Your task to perform on an android device: Go to eBay Image 0: 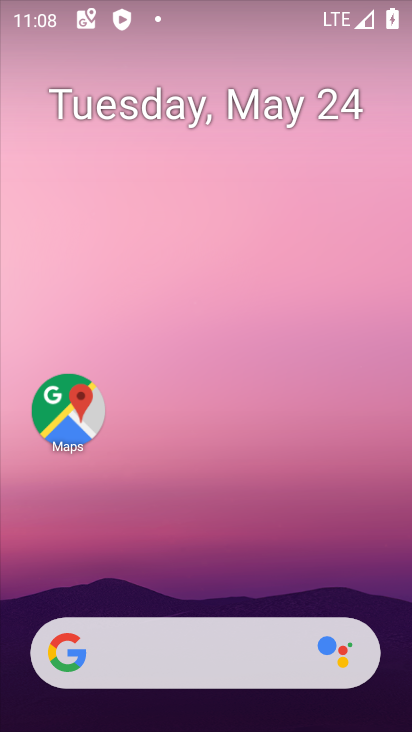
Step 0: drag from (261, 654) to (241, 179)
Your task to perform on an android device: Go to eBay Image 1: 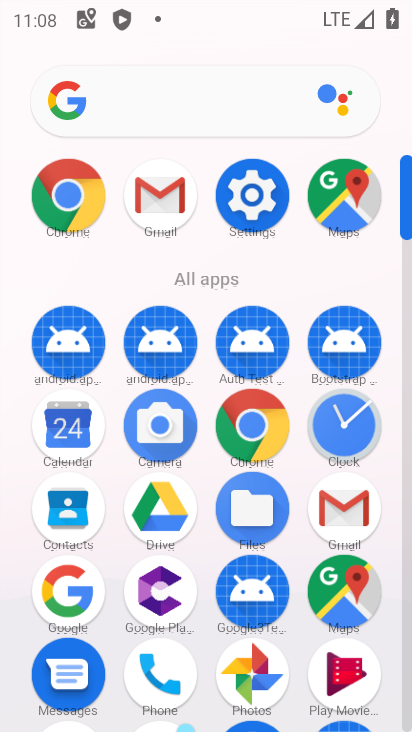
Step 1: click (86, 214)
Your task to perform on an android device: Go to eBay Image 2: 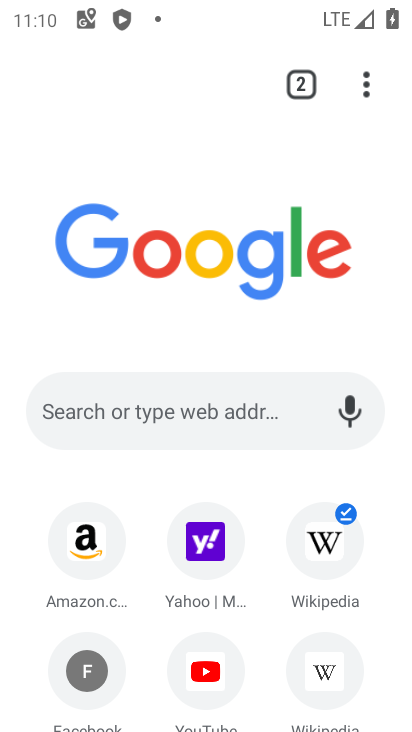
Step 2: click (176, 390)
Your task to perform on an android device: Go to eBay Image 3: 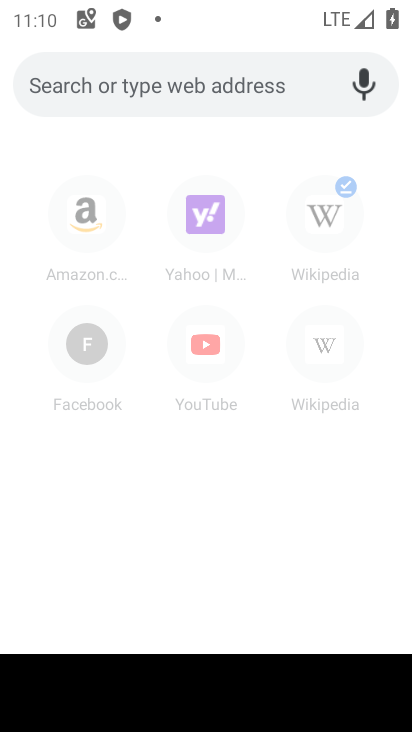
Step 3: click (210, 113)
Your task to perform on an android device: Go to eBay Image 4: 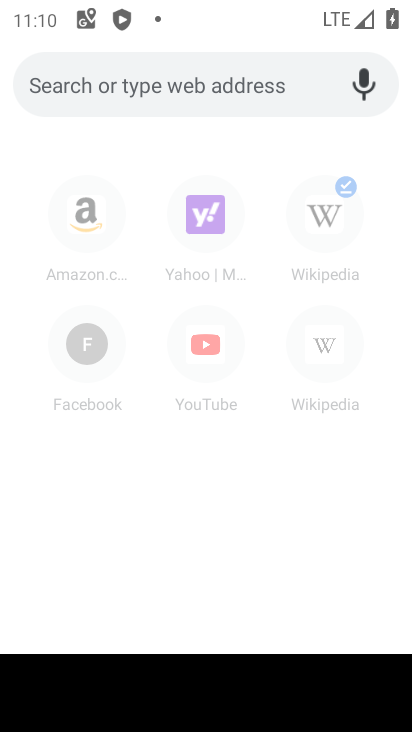
Step 4: type "ebay"
Your task to perform on an android device: Go to eBay Image 5: 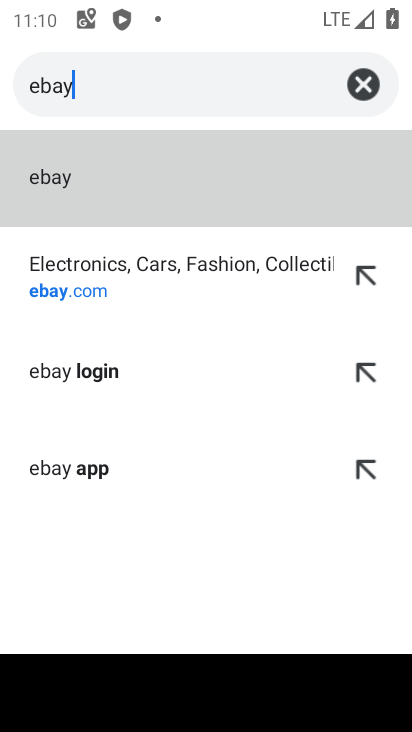
Step 5: click (139, 314)
Your task to perform on an android device: Go to eBay Image 6: 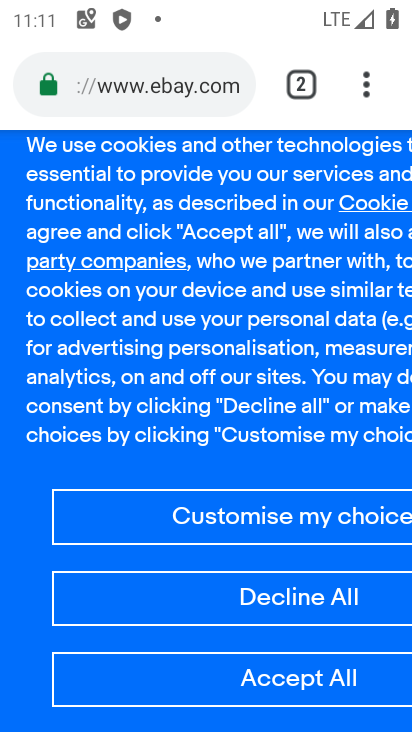
Step 6: task complete